Your task to perform on an android device: Do I have any events this weekend? Image 0: 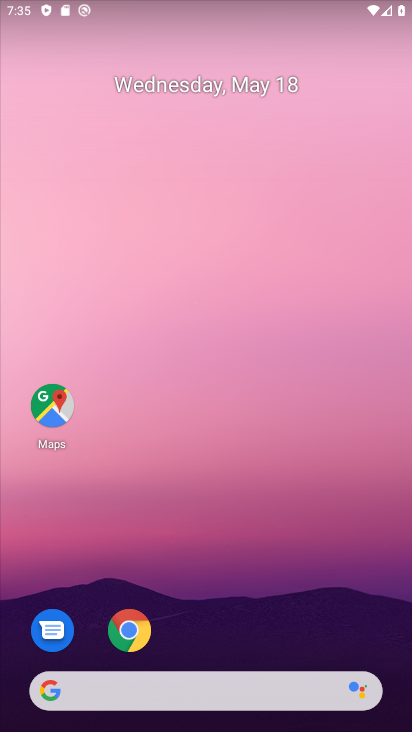
Step 0: drag from (228, 608) to (113, 45)
Your task to perform on an android device: Do I have any events this weekend? Image 1: 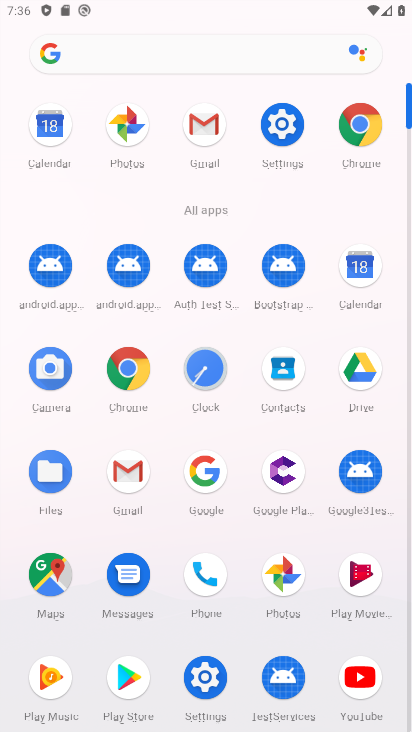
Step 1: click (369, 271)
Your task to perform on an android device: Do I have any events this weekend? Image 2: 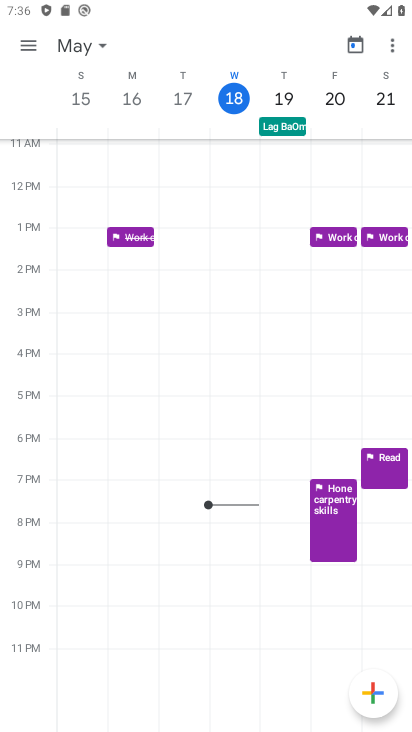
Step 2: task complete